Your task to perform on an android device: show emergency info Image 0: 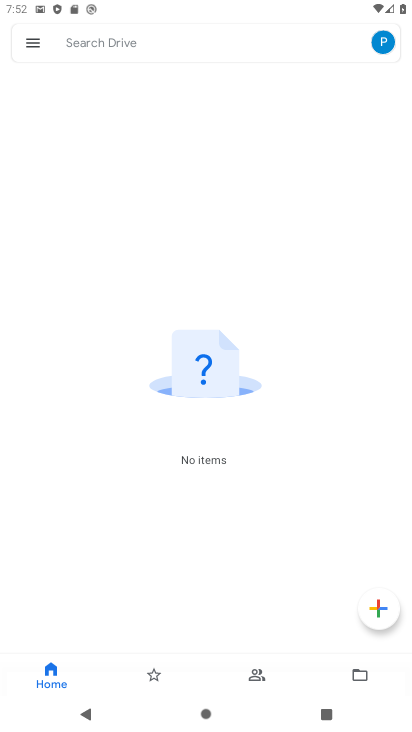
Step 0: press home button
Your task to perform on an android device: show emergency info Image 1: 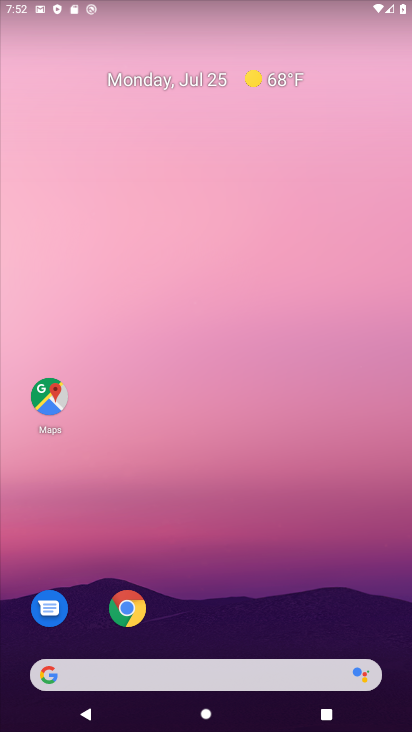
Step 1: drag from (238, 637) to (225, 10)
Your task to perform on an android device: show emergency info Image 2: 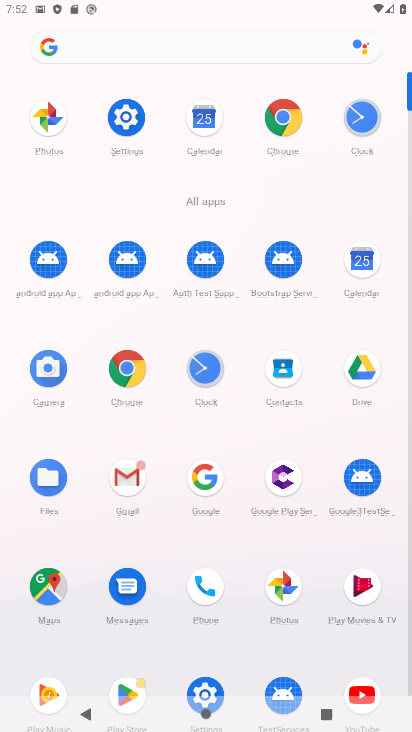
Step 2: click (127, 122)
Your task to perform on an android device: show emergency info Image 3: 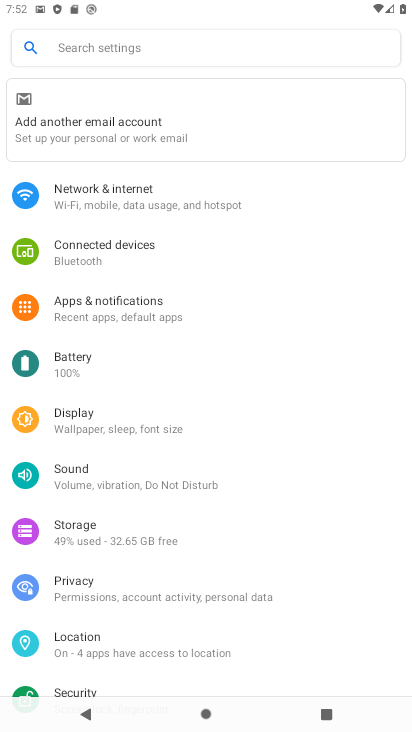
Step 3: drag from (256, 389) to (221, 107)
Your task to perform on an android device: show emergency info Image 4: 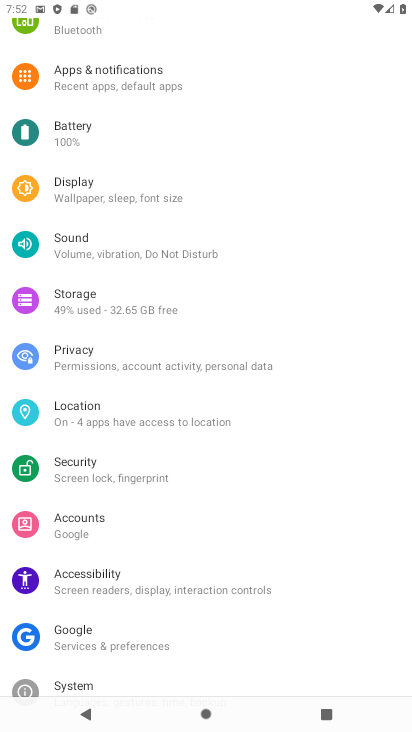
Step 4: drag from (137, 536) to (148, 175)
Your task to perform on an android device: show emergency info Image 5: 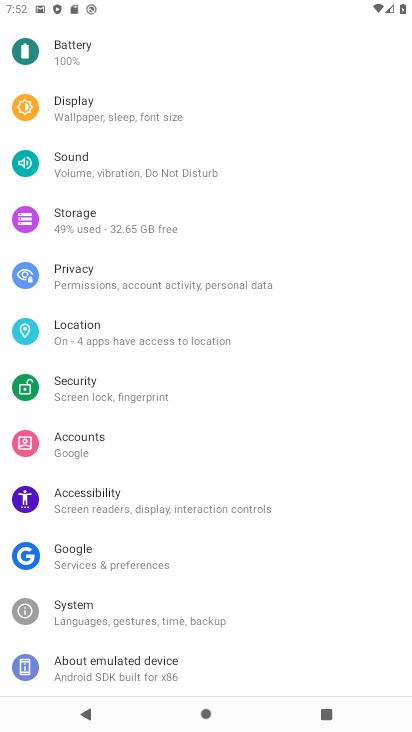
Step 5: click (92, 661)
Your task to perform on an android device: show emergency info Image 6: 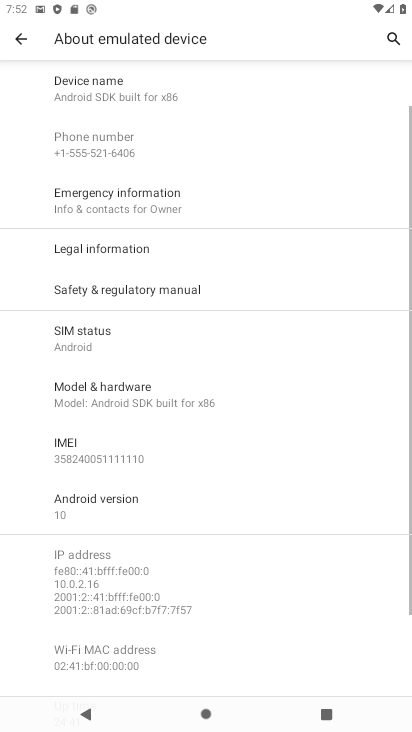
Step 6: click (119, 194)
Your task to perform on an android device: show emergency info Image 7: 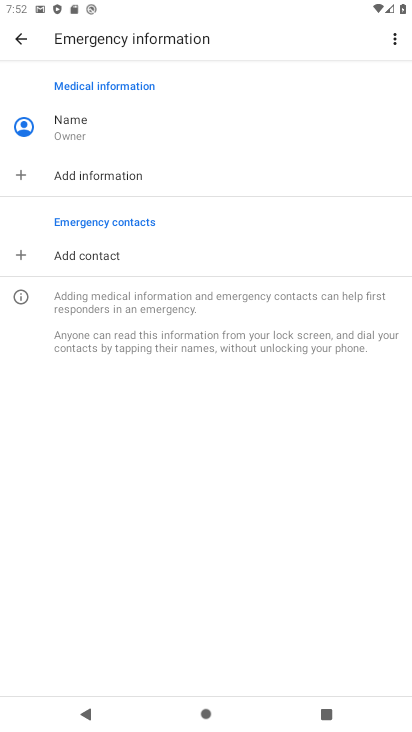
Step 7: task complete